Your task to perform on an android device: delete location history Image 0: 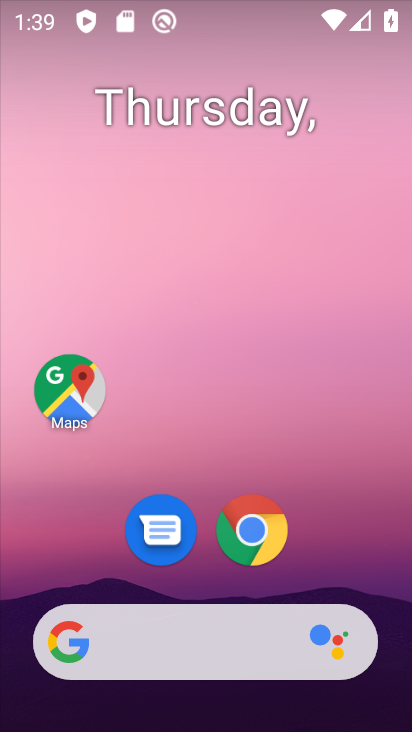
Step 0: click (66, 389)
Your task to perform on an android device: delete location history Image 1: 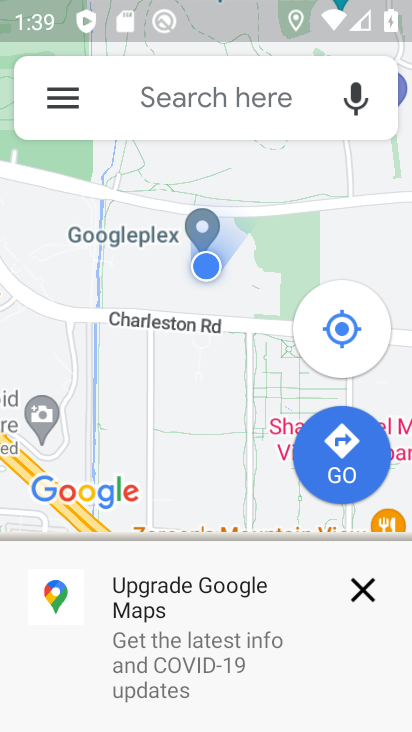
Step 1: click (64, 98)
Your task to perform on an android device: delete location history Image 2: 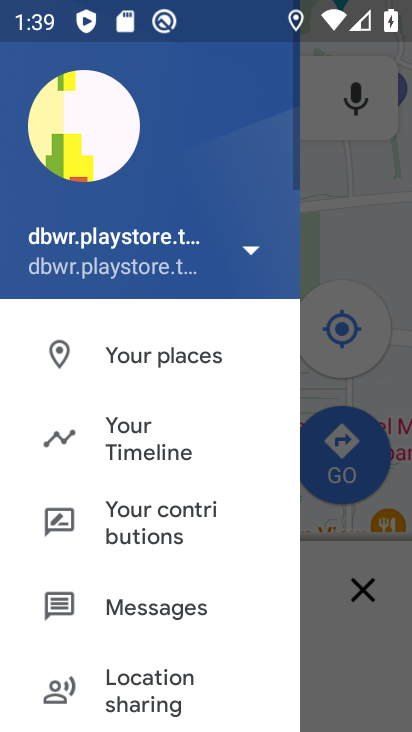
Step 2: click (156, 434)
Your task to perform on an android device: delete location history Image 3: 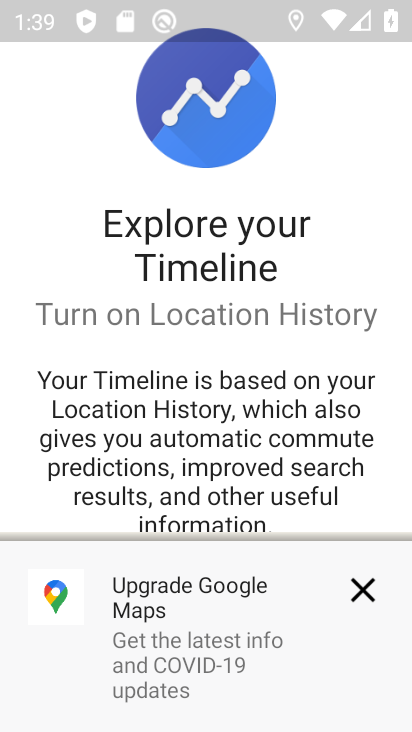
Step 3: click (366, 591)
Your task to perform on an android device: delete location history Image 4: 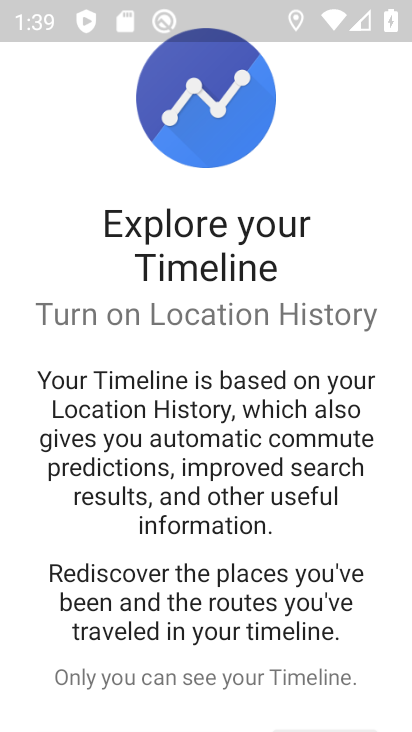
Step 4: drag from (199, 668) to (199, 22)
Your task to perform on an android device: delete location history Image 5: 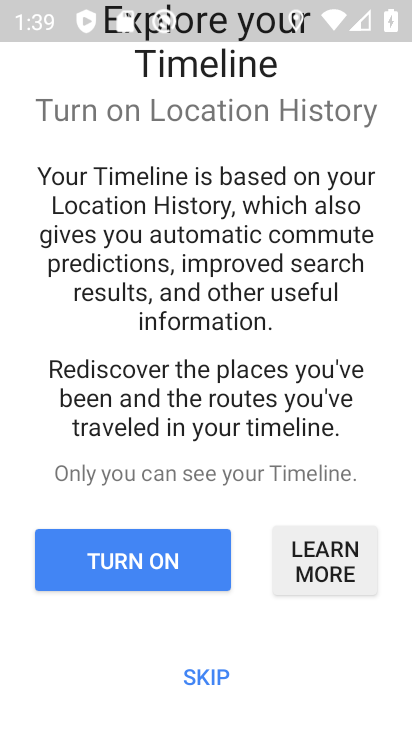
Step 5: click (201, 672)
Your task to perform on an android device: delete location history Image 6: 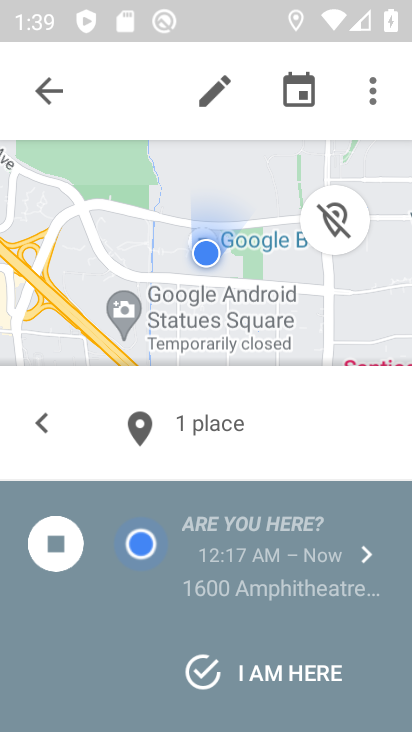
Step 6: click (370, 80)
Your task to perform on an android device: delete location history Image 7: 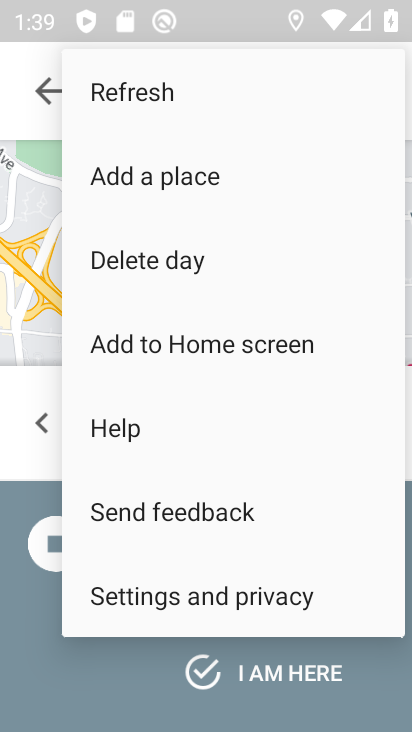
Step 7: drag from (245, 489) to (286, 1)
Your task to perform on an android device: delete location history Image 8: 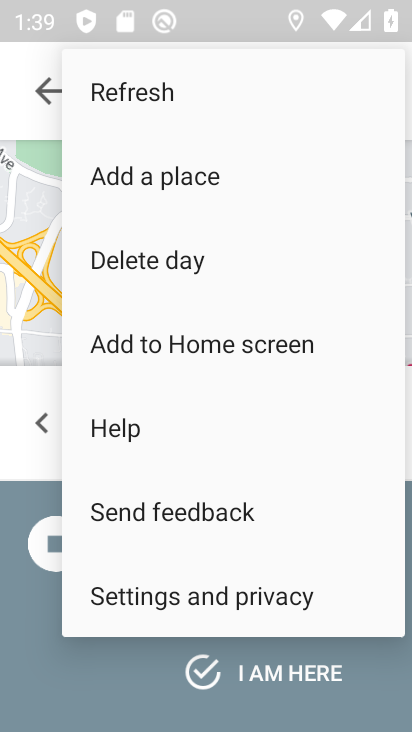
Step 8: click (297, 605)
Your task to perform on an android device: delete location history Image 9: 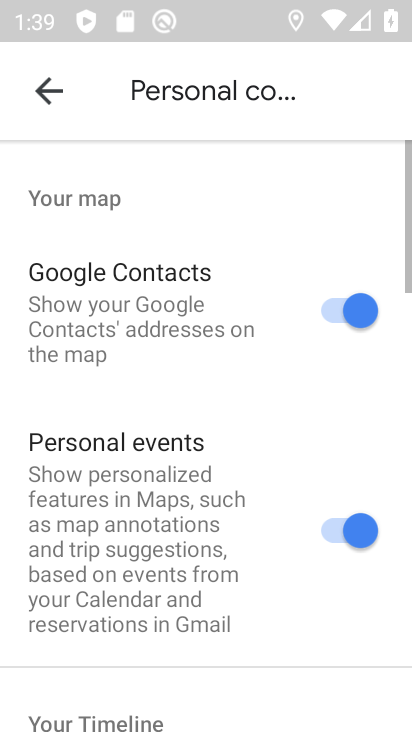
Step 9: drag from (132, 699) to (147, 152)
Your task to perform on an android device: delete location history Image 10: 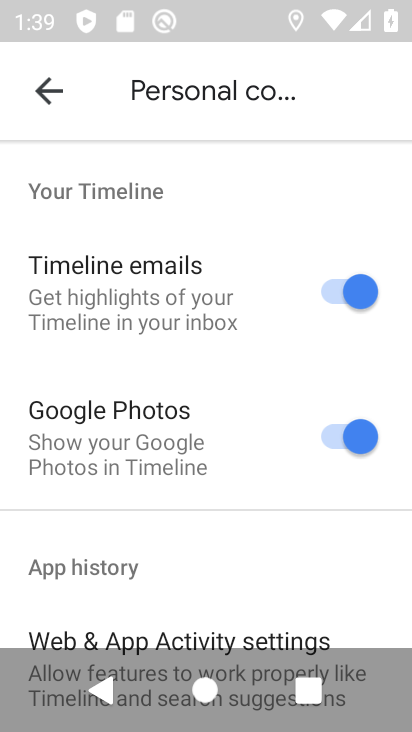
Step 10: drag from (190, 574) to (189, 36)
Your task to perform on an android device: delete location history Image 11: 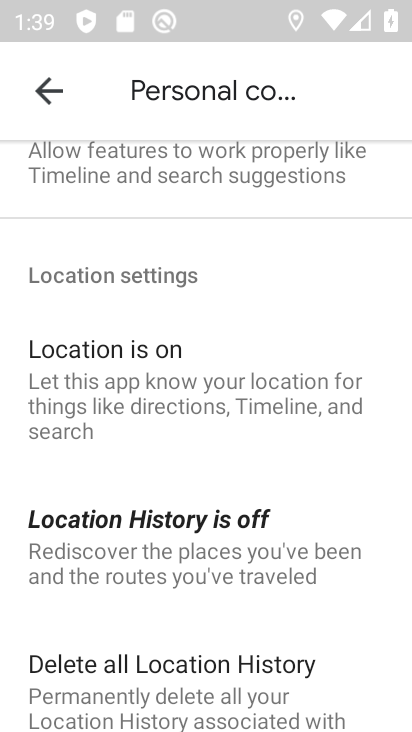
Step 11: click (207, 702)
Your task to perform on an android device: delete location history Image 12: 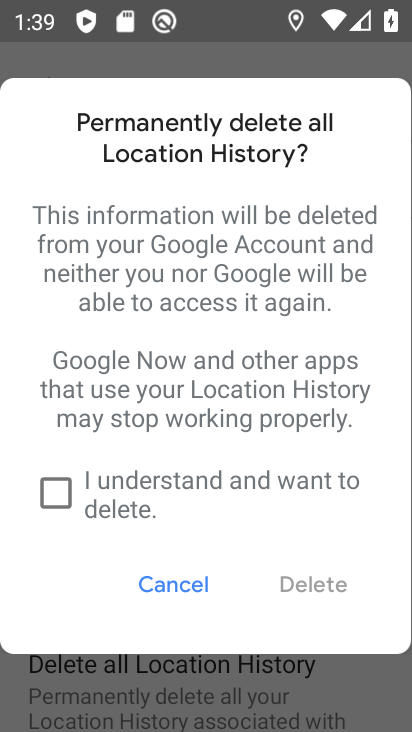
Step 12: click (53, 498)
Your task to perform on an android device: delete location history Image 13: 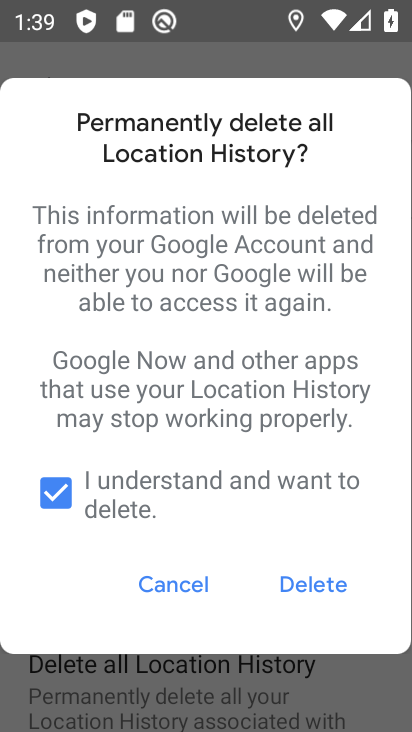
Step 13: click (340, 605)
Your task to perform on an android device: delete location history Image 14: 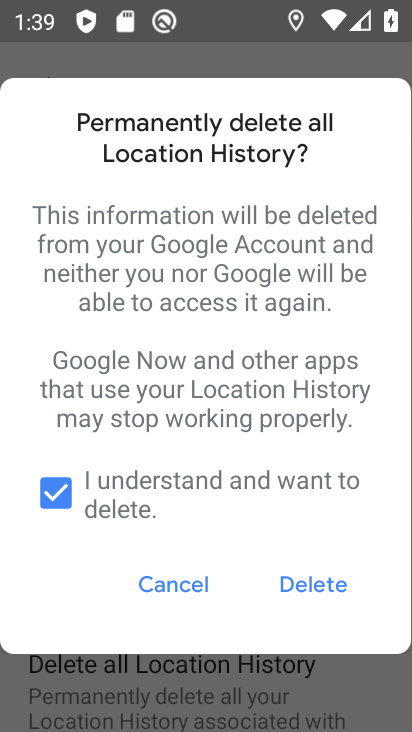
Step 14: click (340, 598)
Your task to perform on an android device: delete location history Image 15: 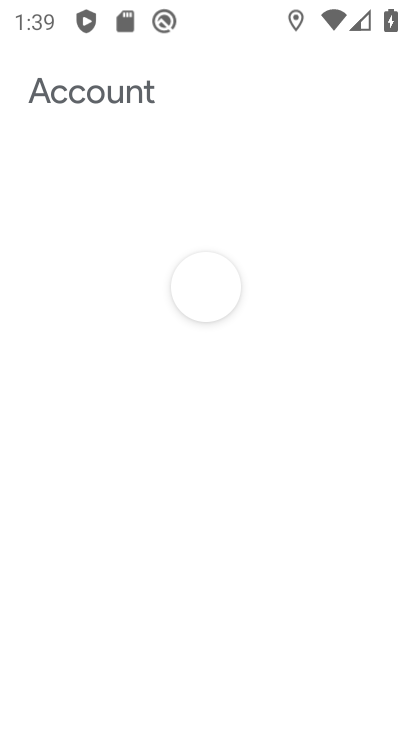
Step 15: click (318, 482)
Your task to perform on an android device: delete location history Image 16: 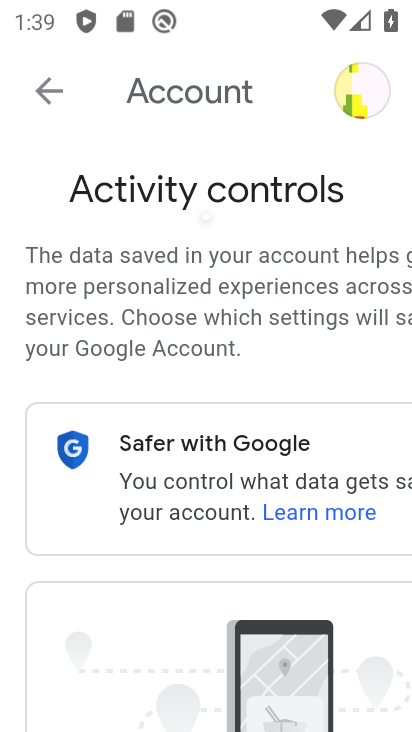
Step 16: task complete